Your task to perform on an android device: turn off picture-in-picture Image 0: 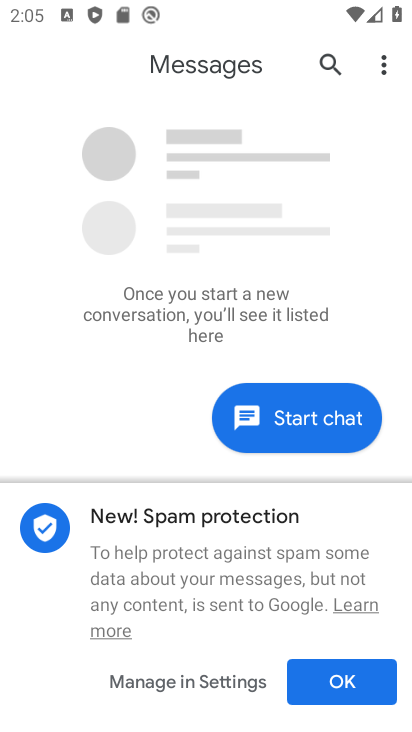
Step 0: press home button
Your task to perform on an android device: turn off picture-in-picture Image 1: 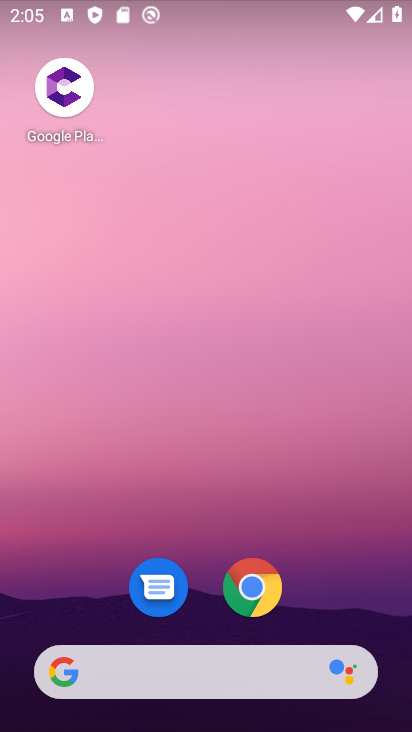
Step 1: click (249, 595)
Your task to perform on an android device: turn off picture-in-picture Image 2: 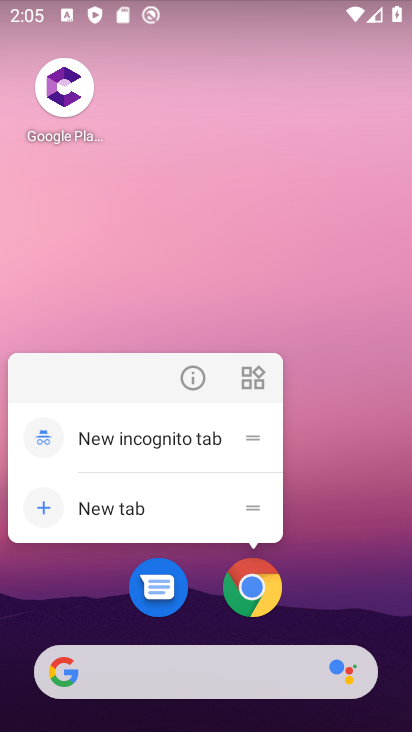
Step 2: click (193, 372)
Your task to perform on an android device: turn off picture-in-picture Image 3: 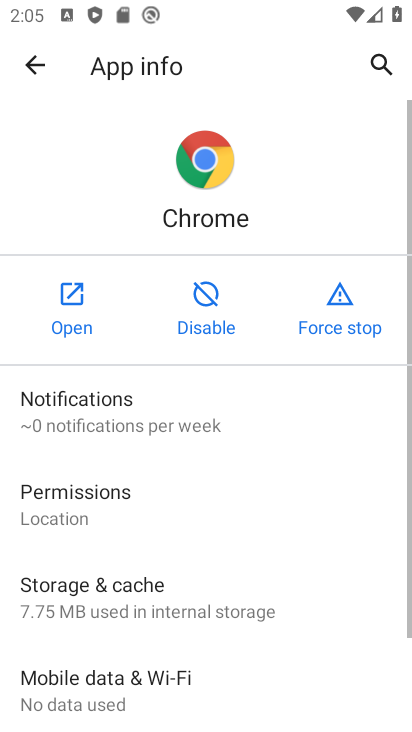
Step 3: drag from (247, 612) to (330, 162)
Your task to perform on an android device: turn off picture-in-picture Image 4: 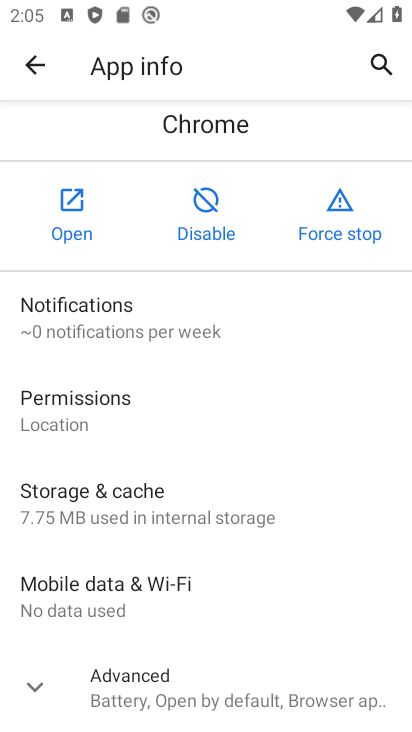
Step 4: click (203, 690)
Your task to perform on an android device: turn off picture-in-picture Image 5: 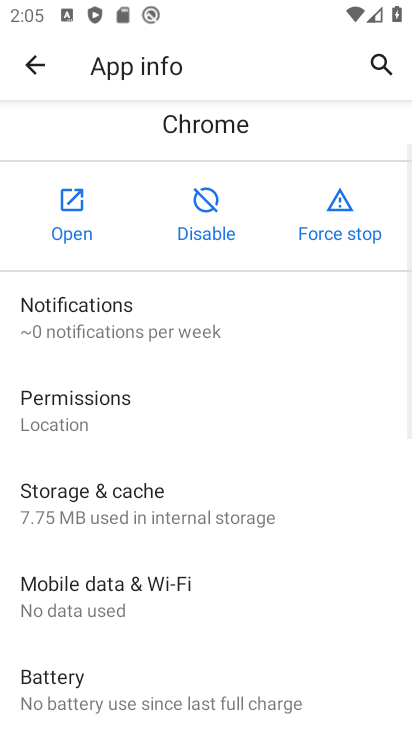
Step 5: drag from (298, 673) to (290, 185)
Your task to perform on an android device: turn off picture-in-picture Image 6: 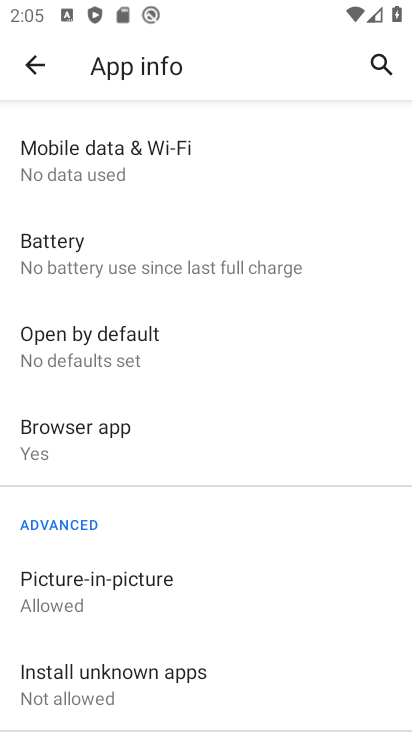
Step 6: click (176, 591)
Your task to perform on an android device: turn off picture-in-picture Image 7: 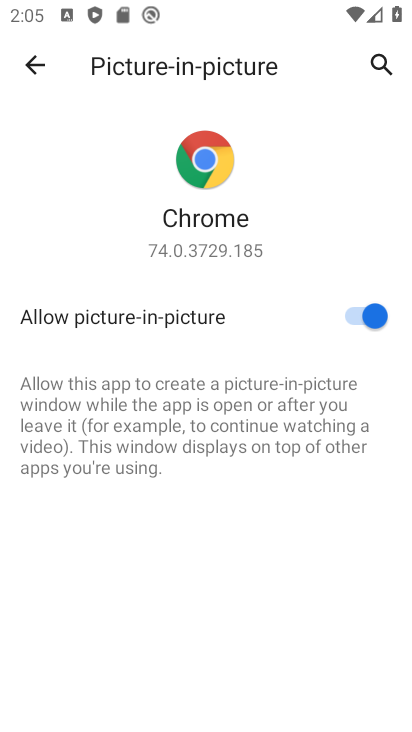
Step 7: click (365, 321)
Your task to perform on an android device: turn off picture-in-picture Image 8: 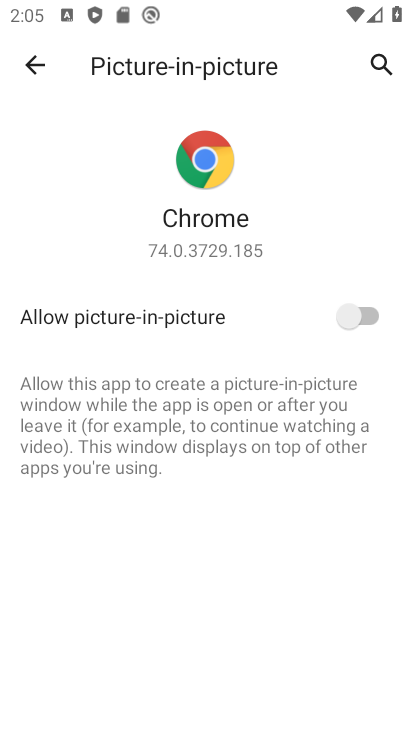
Step 8: task complete